Your task to perform on an android device: Go to accessibility settings Image 0: 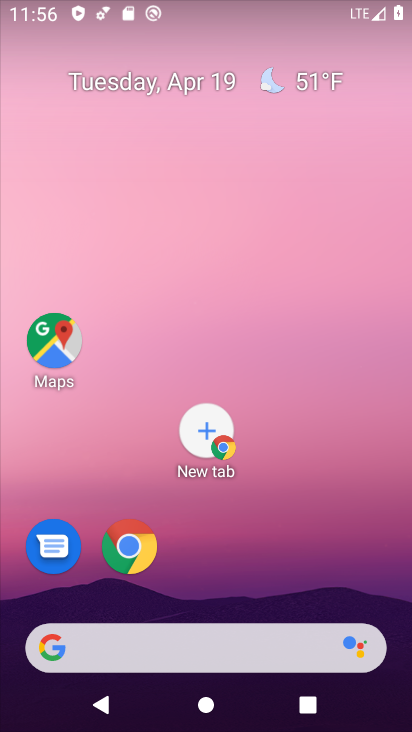
Step 0: drag from (297, 586) to (231, 84)
Your task to perform on an android device: Go to accessibility settings Image 1: 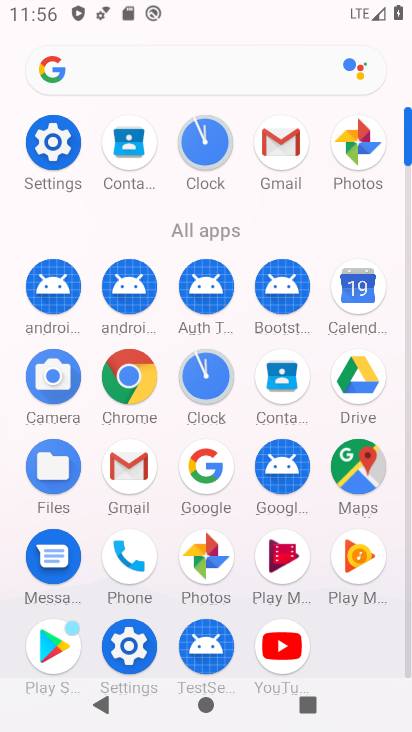
Step 1: click (36, 141)
Your task to perform on an android device: Go to accessibility settings Image 2: 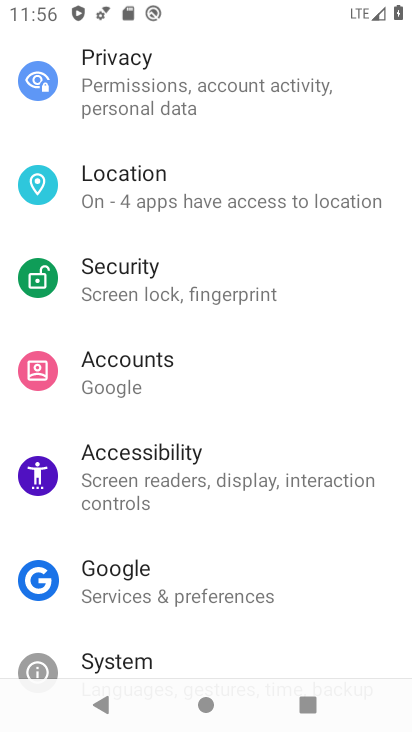
Step 2: drag from (196, 192) to (235, 586)
Your task to perform on an android device: Go to accessibility settings Image 3: 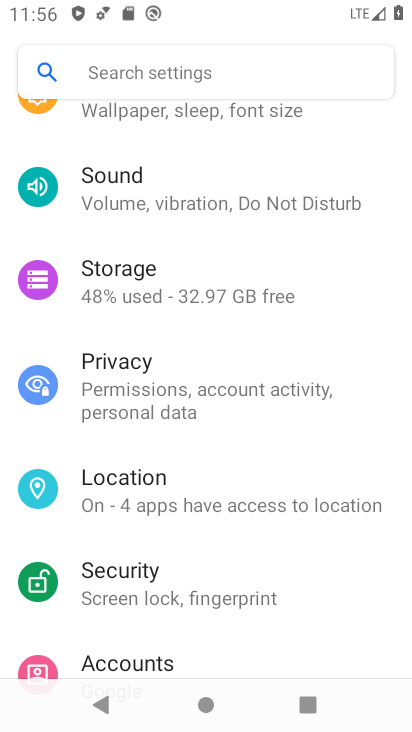
Step 3: drag from (185, 610) to (127, 116)
Your task to perform on an android device: Go to accessibility settings Image 4: 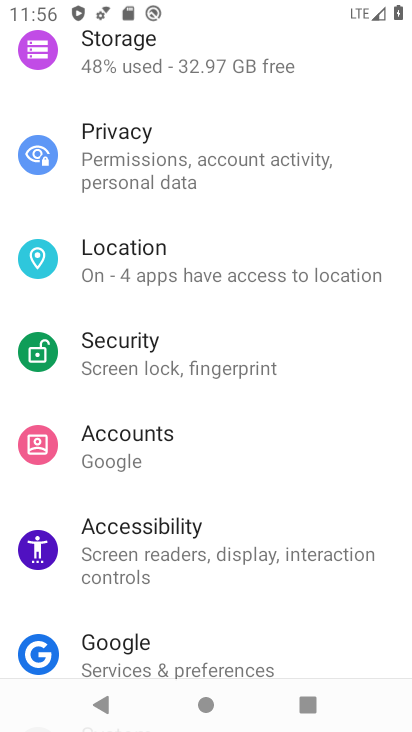
Step 4: click (126, 532)
Your task to perform on an android device: Go to accessibility settings Image 5: 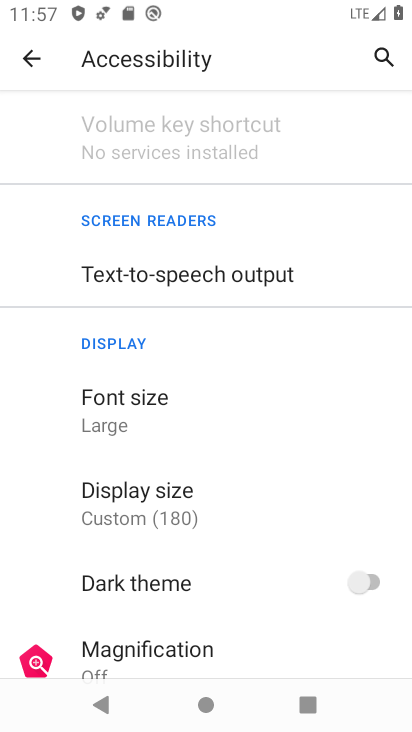
Step 5: task complete